Your task to perform on an android device: turn on improve location accuracy Image 0: 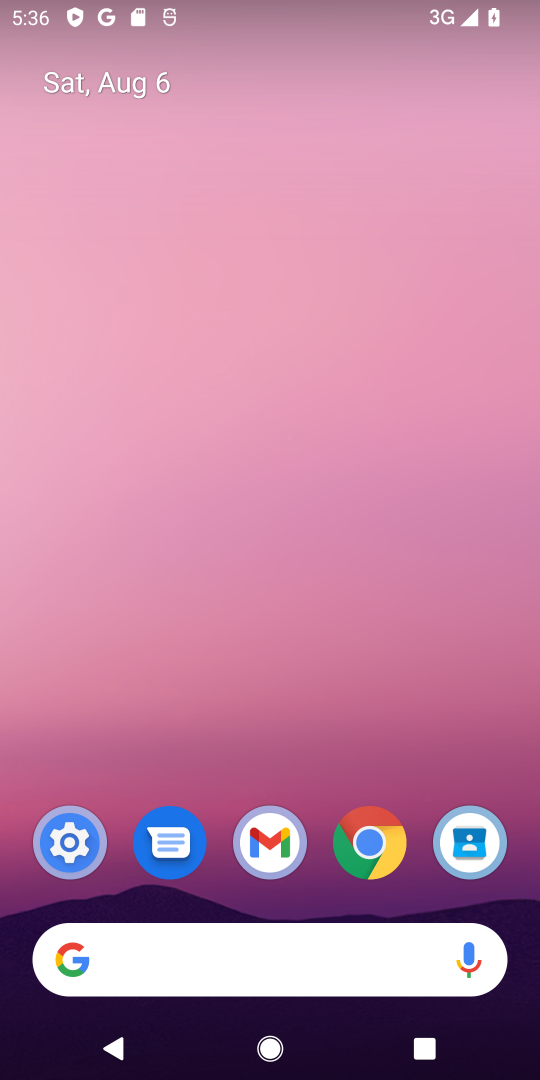
Step 0: click (64, 836)
Your task to perform on an android device: turn on improve location accuracy Image 1: 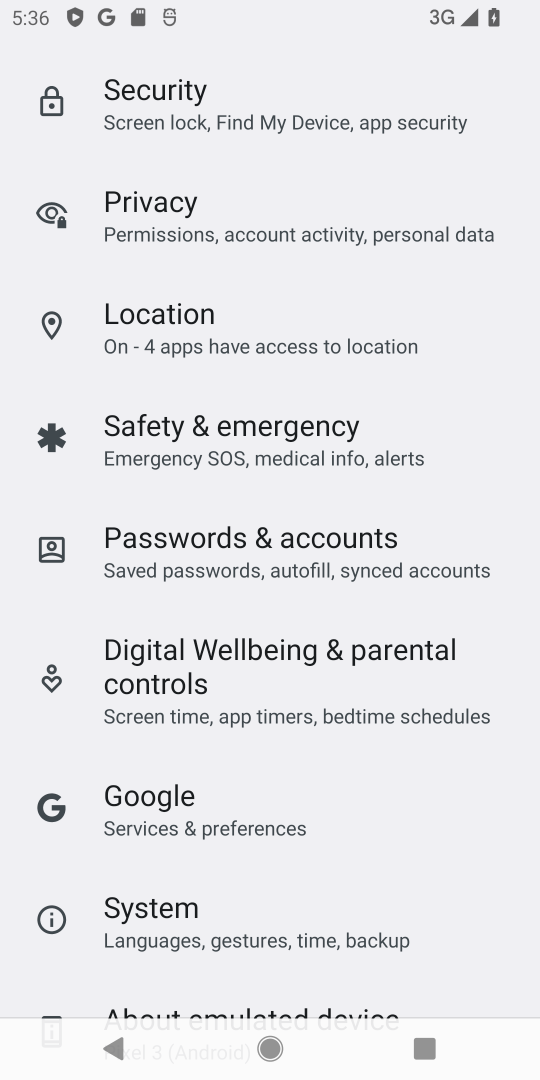
Step 1: click (182, 321)
Your task to perform on an android device: turn on improve location accuracy Image 2: 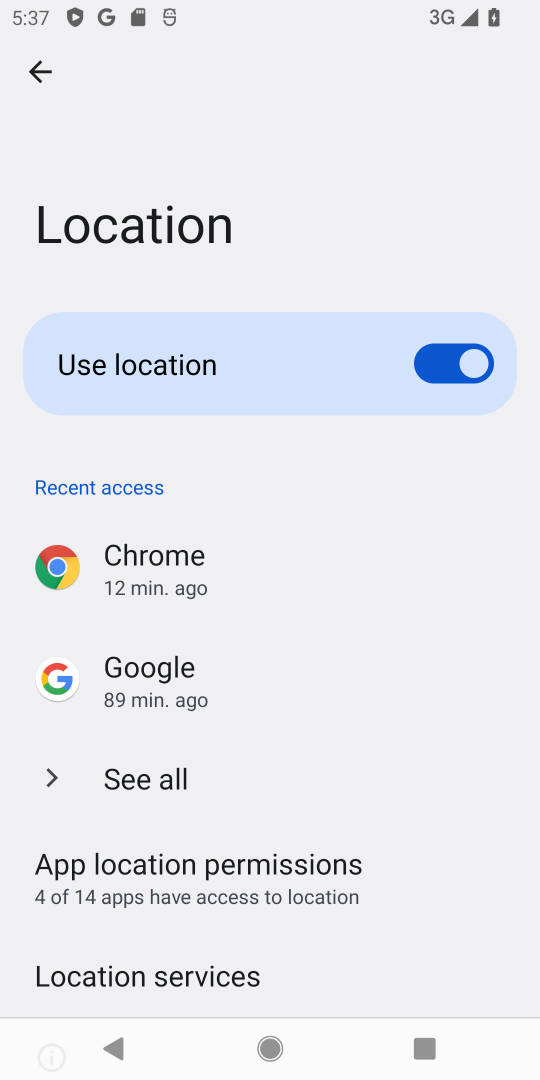
Step 2: drag from (420, 828) to (358, 209)
Your task to perform on an android device: turn on improve location accuracy Image 3: 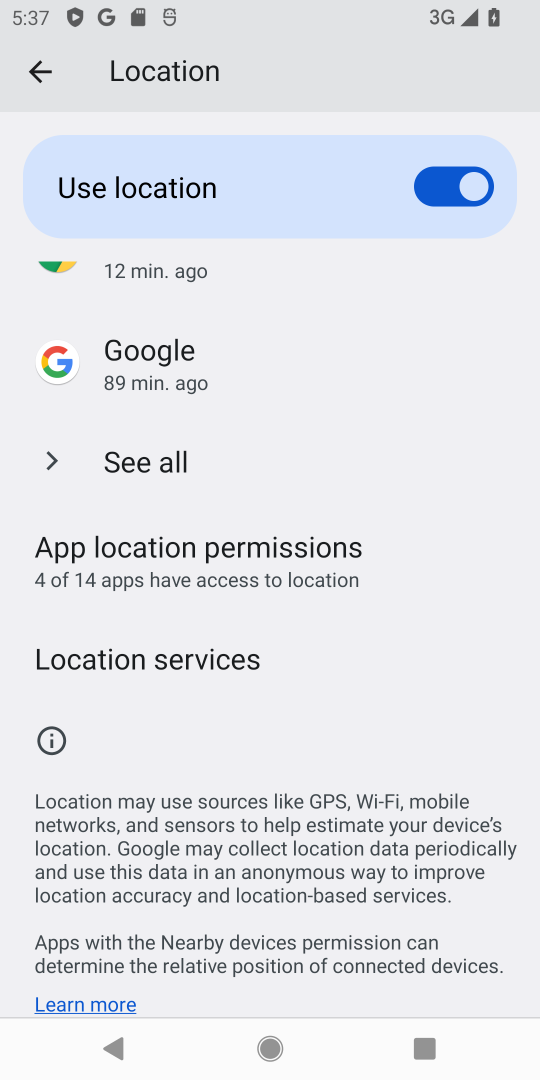
Step 3: click (186, 564)
Your task to perform on an android device: turn on improve location accuracy Image 4: 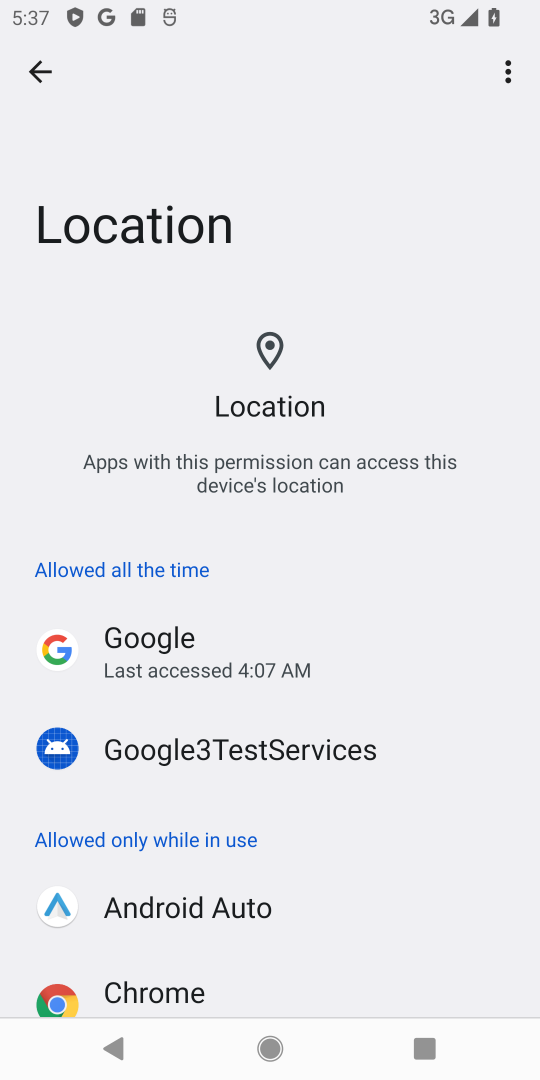
Step 4: click (43, 65)
Your task to perform on an android device: turn on improve location accuracy Image 5: 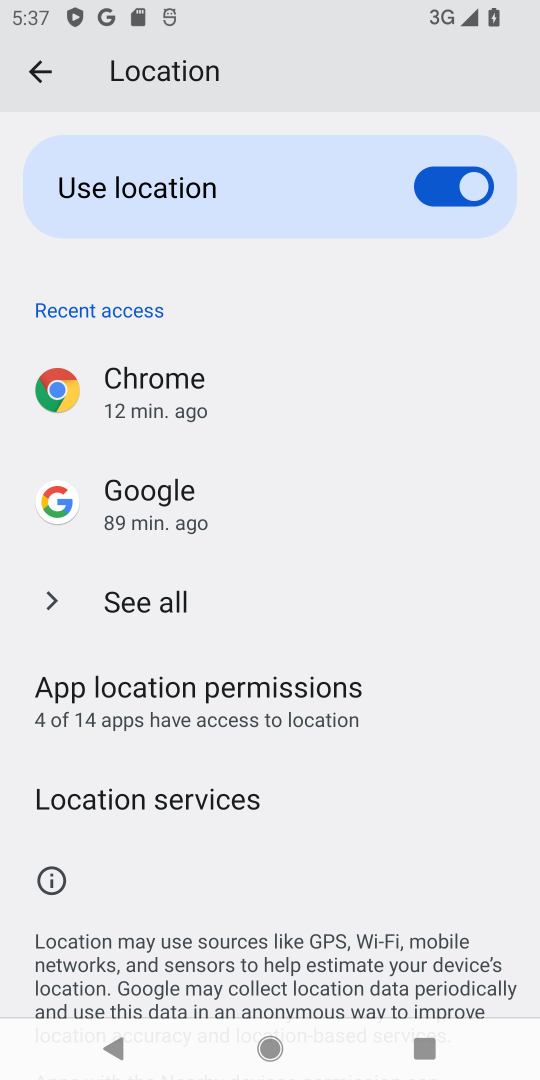
Step 5: click (120, 589)
Your task to perform on an android device: turn on improve location accuracy Image 6: 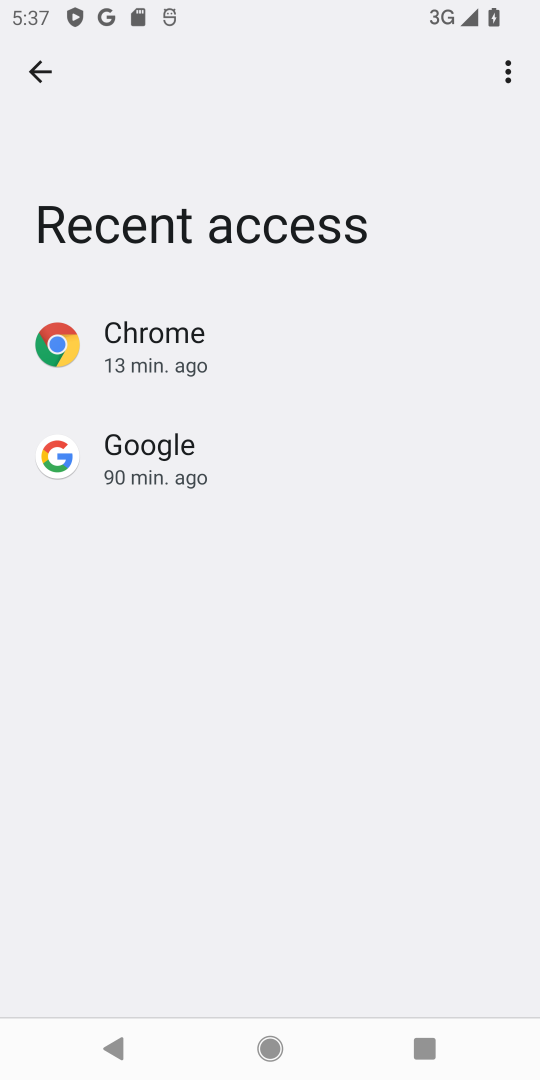
Step 6: click (33, 77)
Your task to perform on an android device: turn on improve location accuracy Image 7: 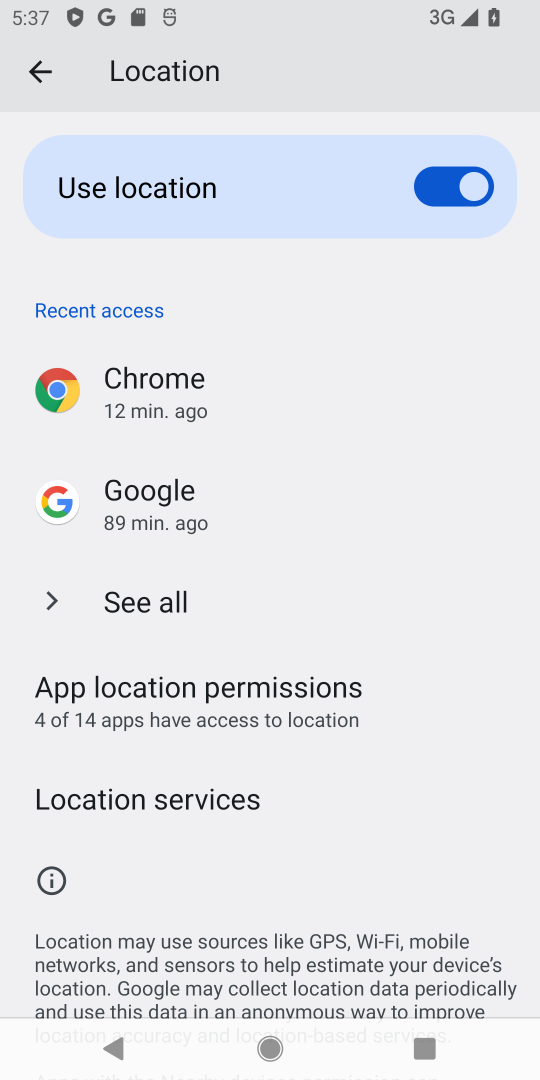
Step 7: task complete